Your task to perform on an android device: open a bookmark in the chrome app Image 0: 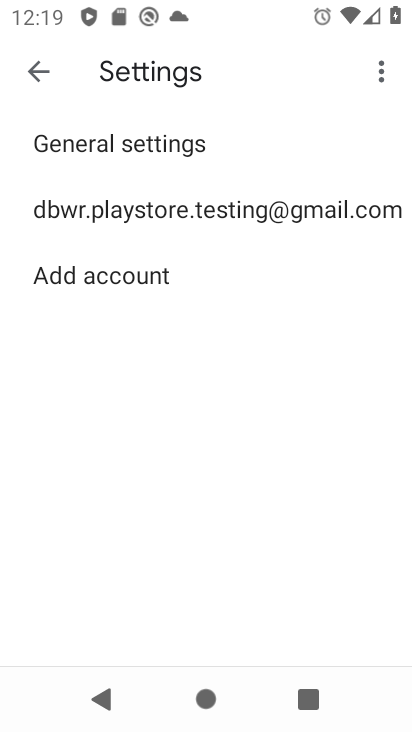
Step 0: press home button
Your task to perform on an android device: open a bookmark in the chrome app Image 1: 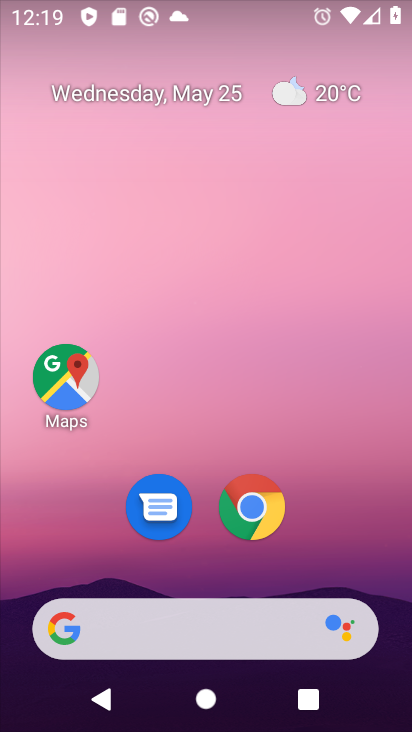
Step 1: drag from (349, 521) to (342, 125)
Your task to perform on an android device: open a bookmark in the chrome app Image 2: 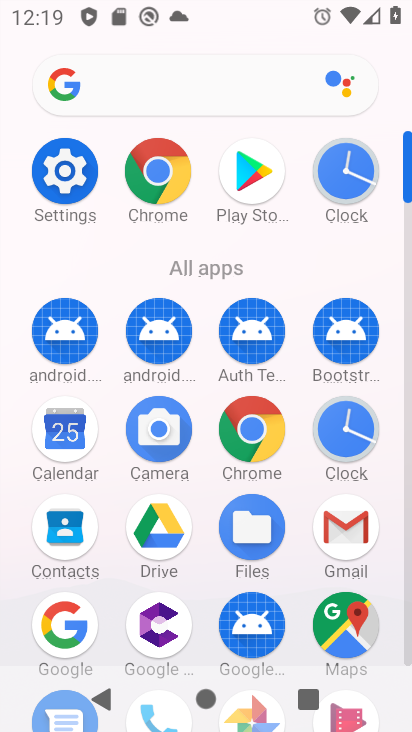
Step 2: click (232, 441)
Your task to perform on an android device: open a bookmark in the chrome app Image 3: 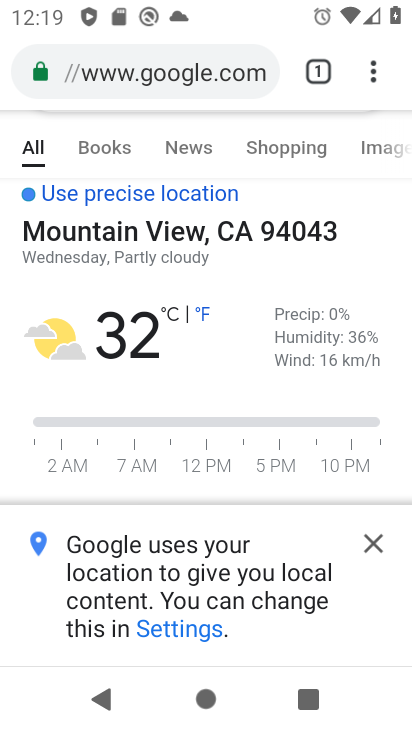
Step 3: task complete